Your task to perform on an android device: change the clock display to show seconds Image 0: 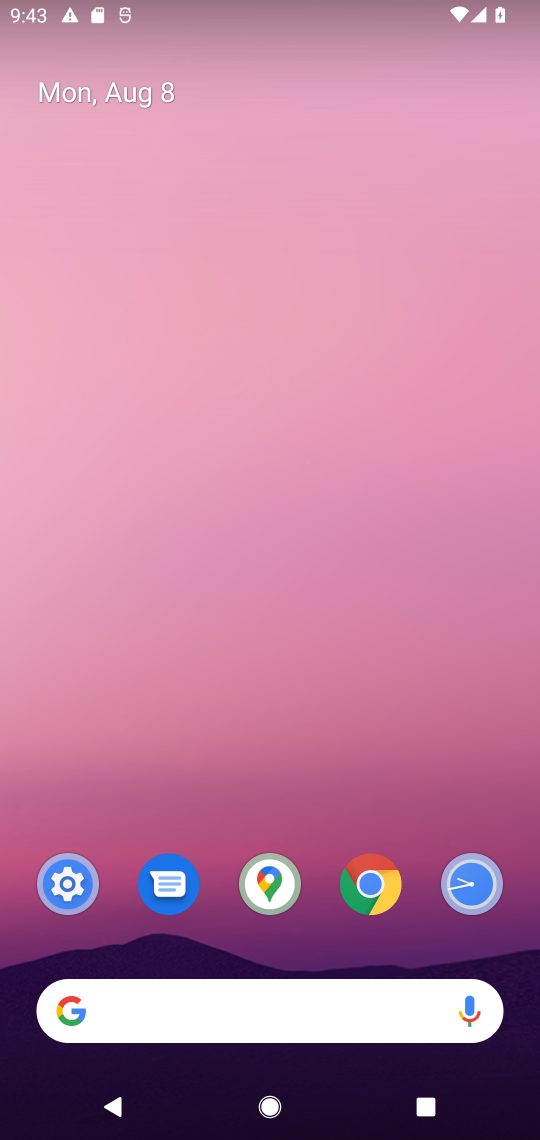
Step 0: click (476, 890)
Your task to perform on an android device: change the clock display to show seconds Image 1: 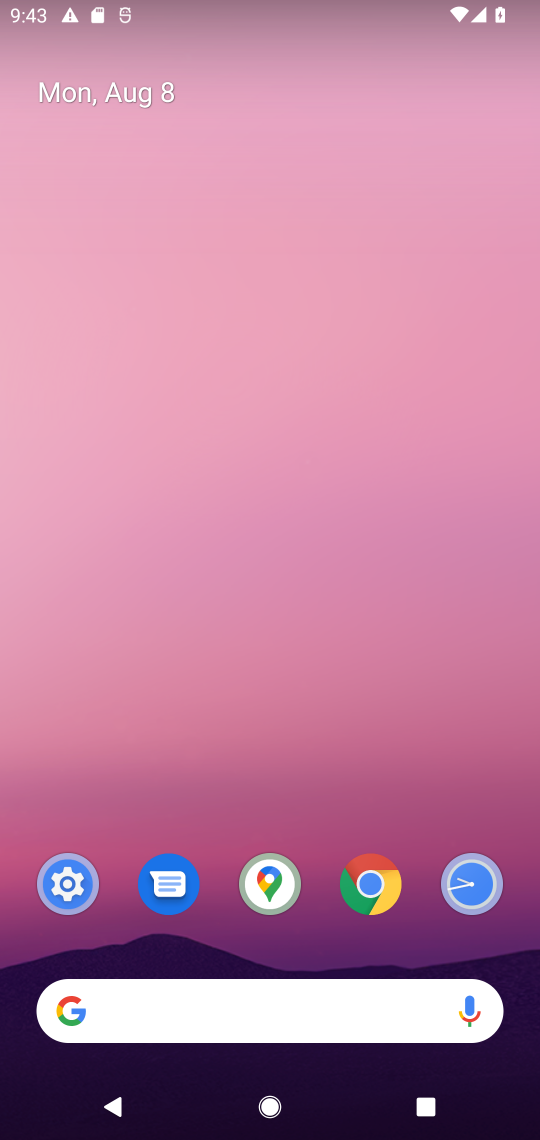
Step 1: click (466, 880)
Your task to perform on an android device: change the clock display to show seconds Image 2: 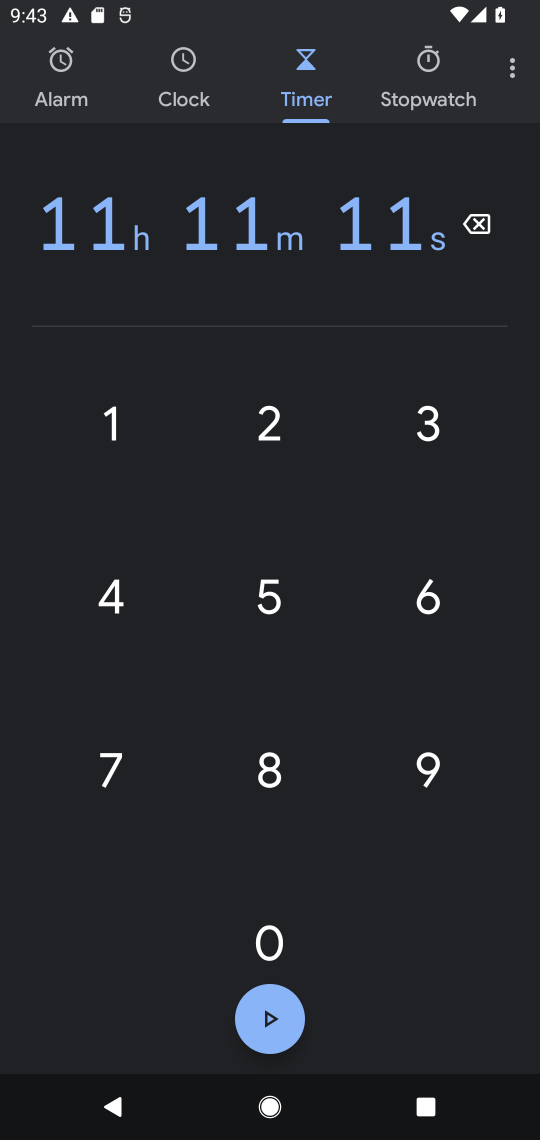
Step 2: click (513, 61)
Your task to perform on an android device: change the clock display to show seconds Image 3: 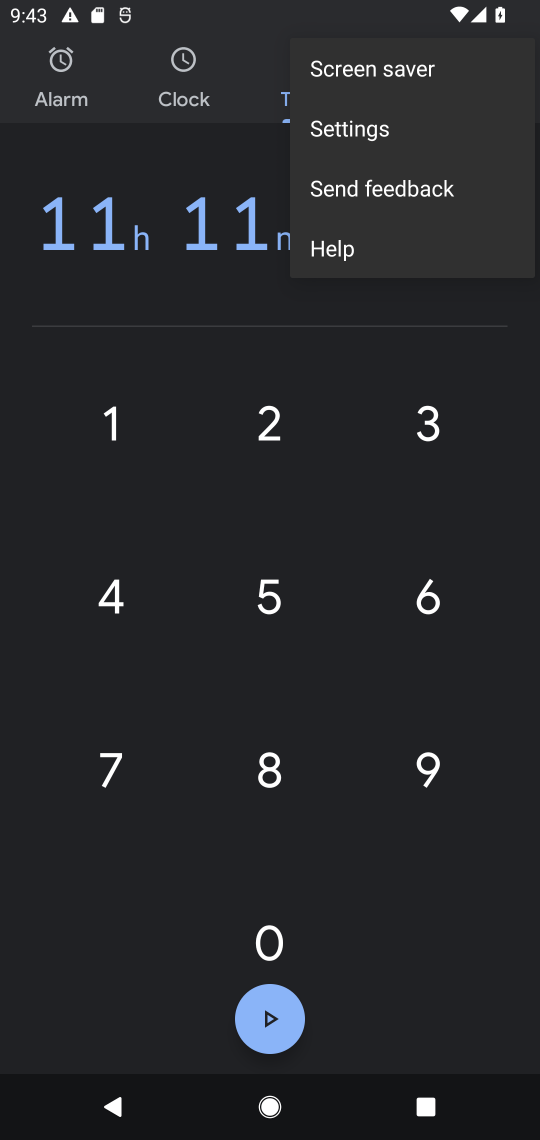
Step 3: click (375, 123)
Your task to perform on an android device: change the clock display to show seconds Image 4: 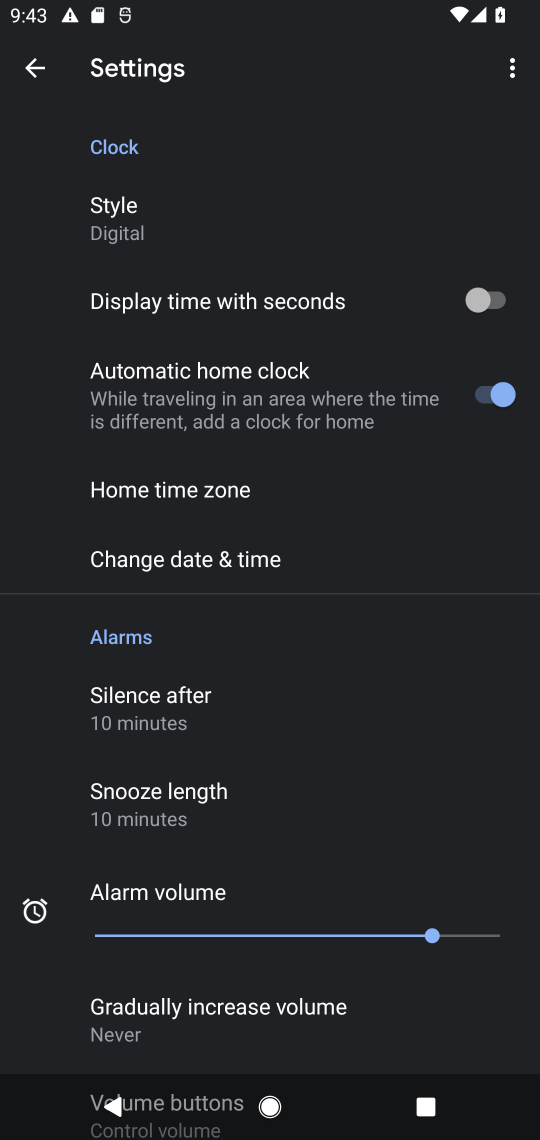
Step 4: click (482, 293)
Your task to perform on an android device: change the clock display to show seconds Image 5: 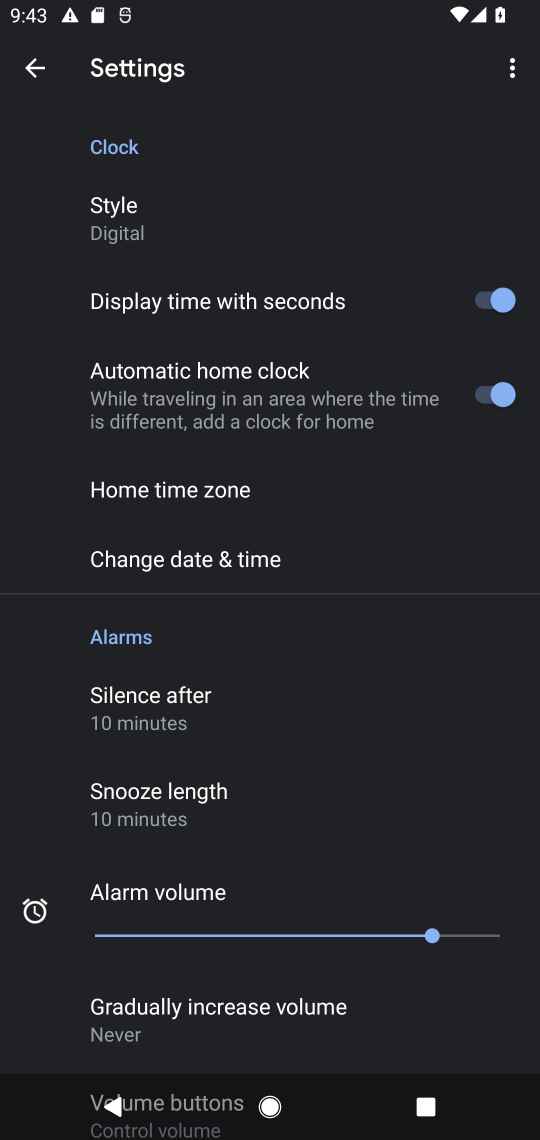
Step 5: task complete